Your task to perform on an android device: move a message to another label in the gmail app Image 0: 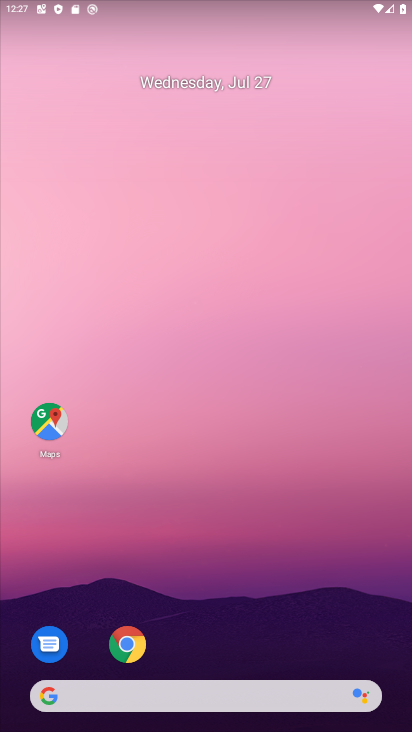
Step 0: drag from (344, 632) to (331, 52)
Your task to perform on an android device: move a message to another label in the gmail app Image 1: 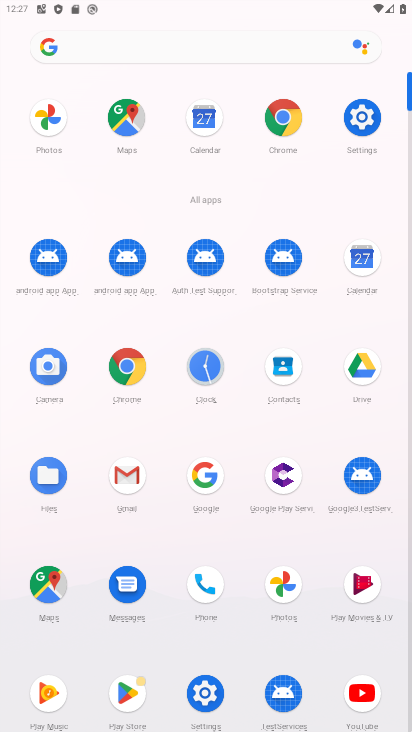
Step 1: click (145, 478)
Your task to perform on an android device: move a message to another label in the gmail app Image 2: 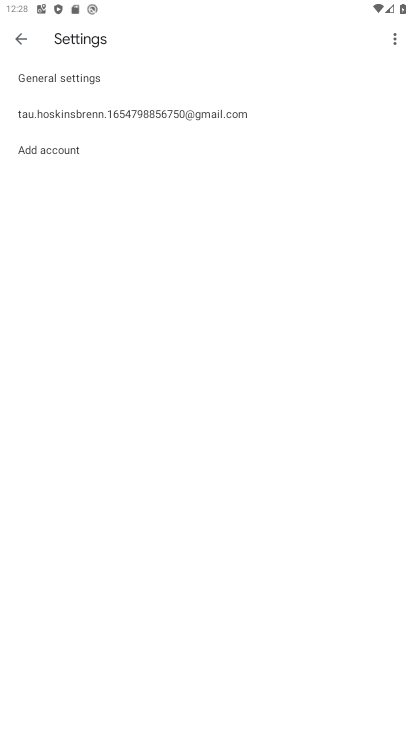
Step 2: click (26, 38)
Your task to perform on an android device: move a message to another label in the gmail app Image 3: 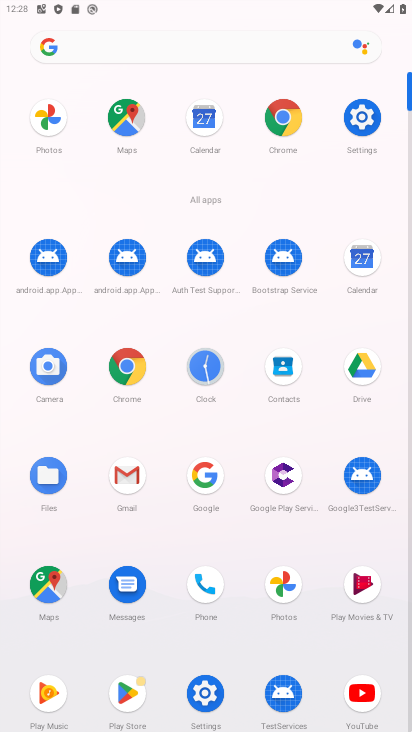
Step 3: click (148, 481)
Your task to perform on an android device: move a message to another label in the gmail app Image 4: 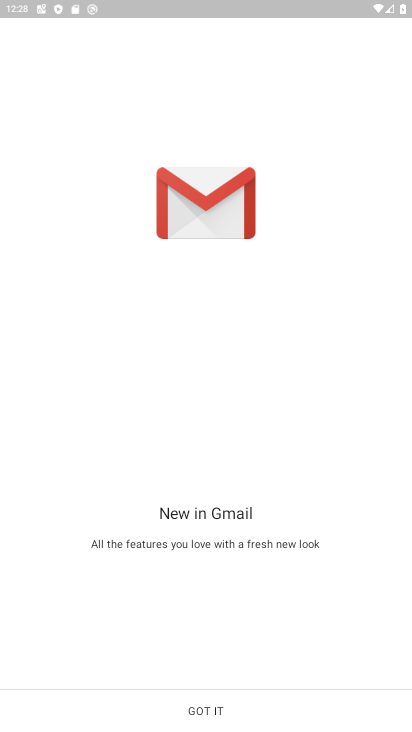
Step 4: click (232, 702)
Your task to perform on an android device: move a message to another label in the gmail app Image 5: 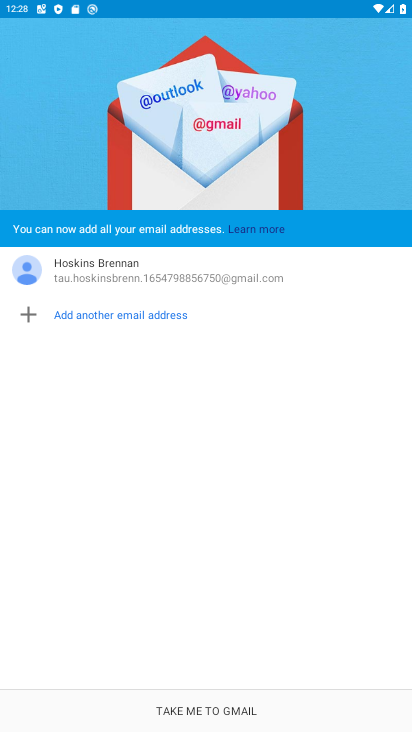
Step 5: click (232, 702)
Your task to perform on an android device: move a message to another label in the gmail app Image 6: 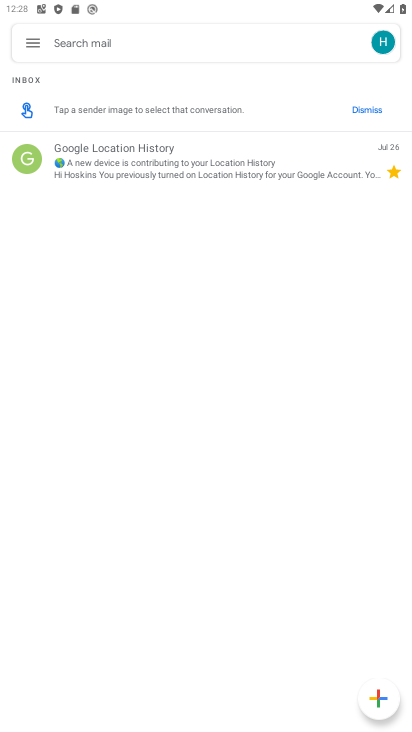
Step 6: click (229, 179)
Your task to perform on an android device: move a message to another label in the gmail app Image 7: 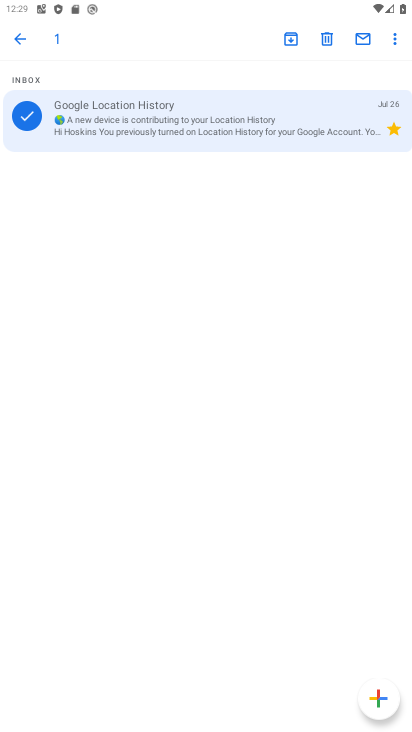
Step 7: click (60, 199)
Your task to perform on an android device: move a message to another label in the gmail app Image 8: 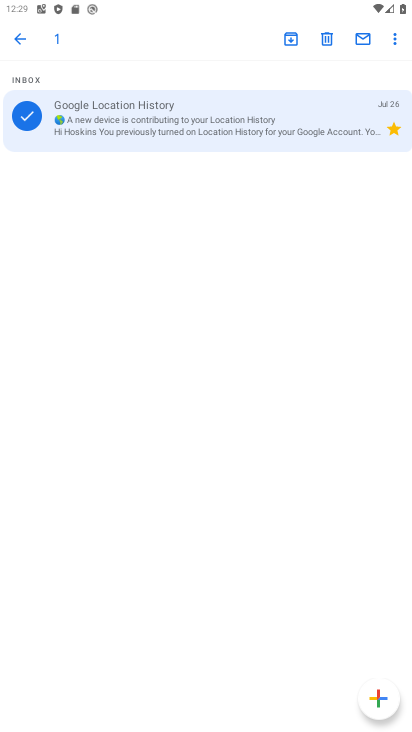
Step 8: task complete